Your task to perform on an android device: Go to Wikipedia Image 0: 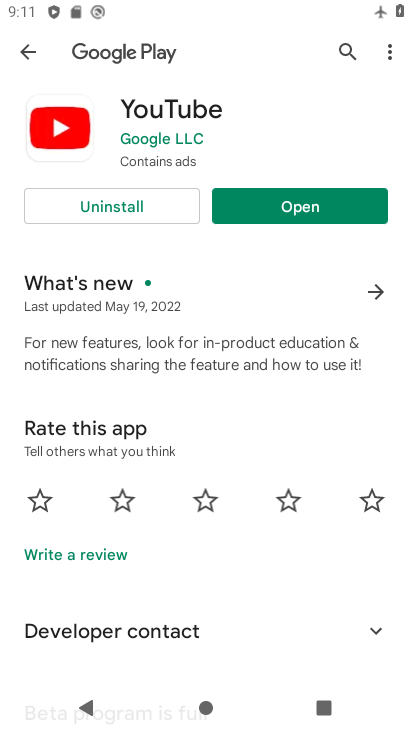
Step 0: press home button
Your task to perform on an android device: Go to Wikipedia Image 1: 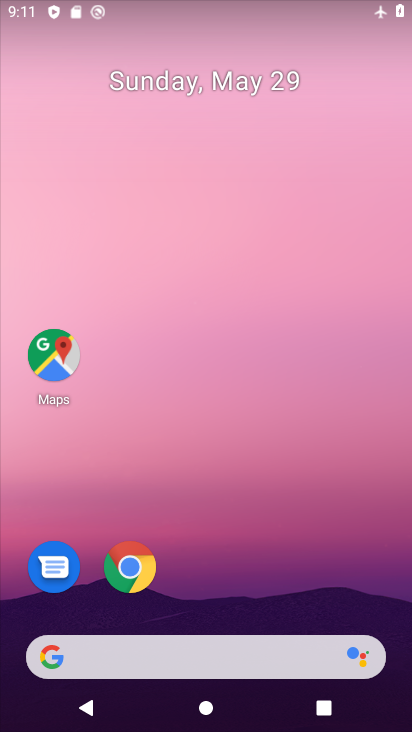
Step 1: click (136, 563)
Your task to perform on an android device: Go to Wikipedia Image 2: 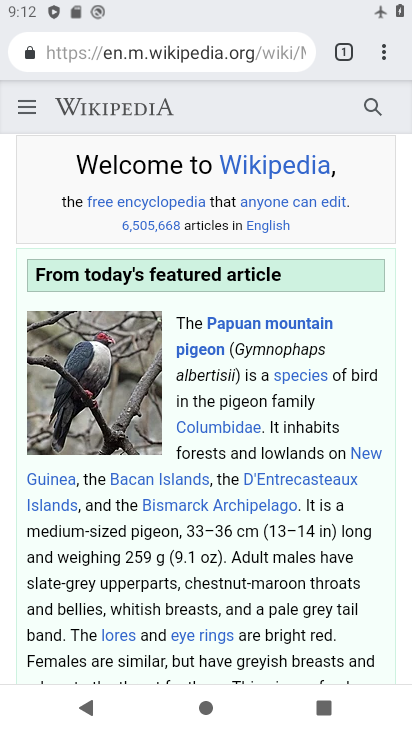
Step 2: task complete